Your task to perform on an android device: open a bookmark in the chrome app Image 0: 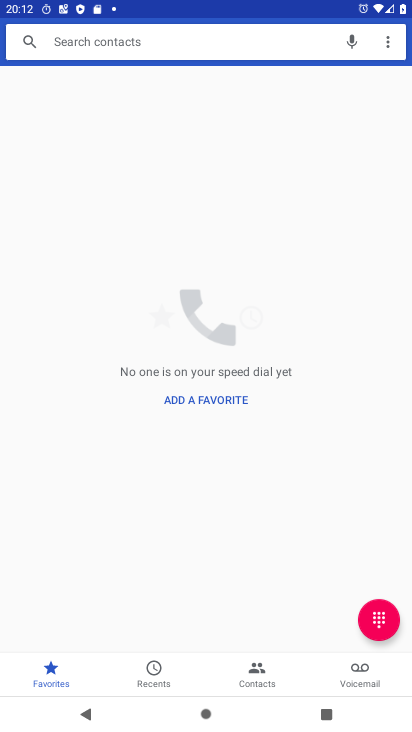
Step 0: press home button
Your task to perform on an android device: open a bookmark in the chrome app Image 1: 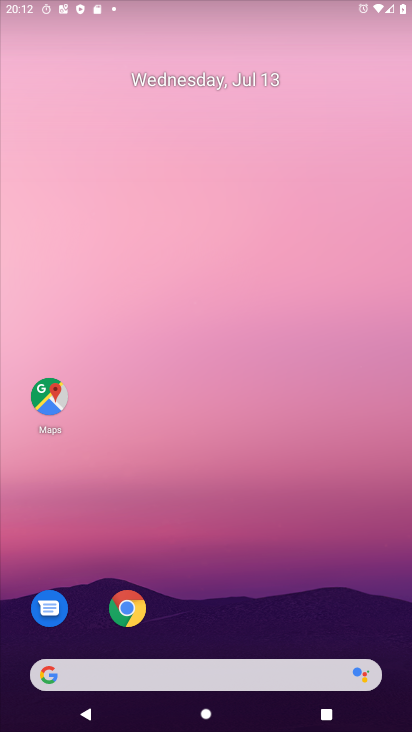
Step 1: drag from (196, 649) to (154, 123)
Your task to perform on an android device: open a bookmark in the chrome app Image 2: 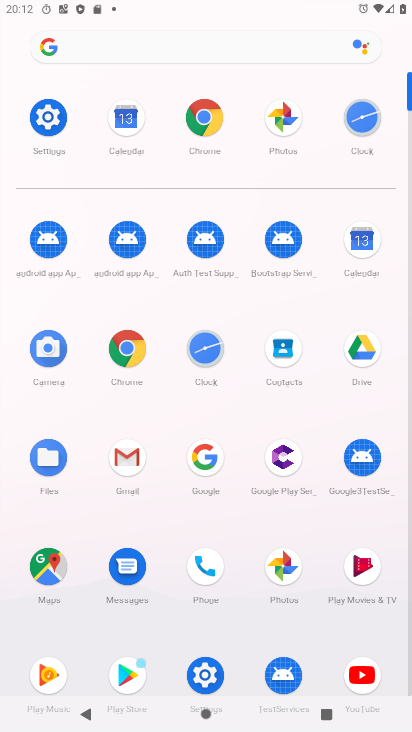
Step 2: click (114, 355)
Your task to perform on an android device: open a bookmark in the chrome app Image 3: 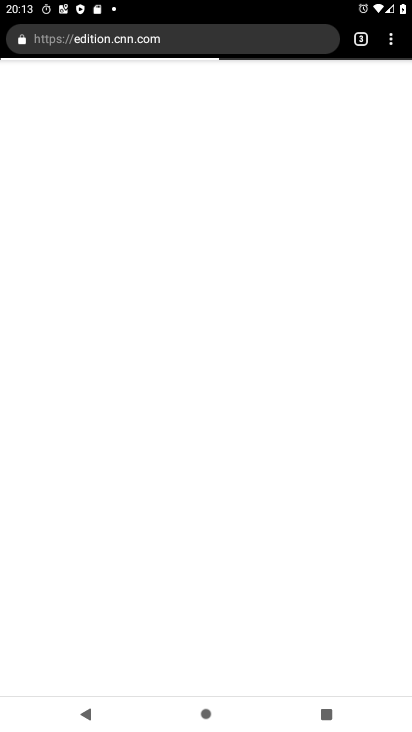
Step 3: task complete